Your task to perform on an android device: change the upload size in google photos Image 0: 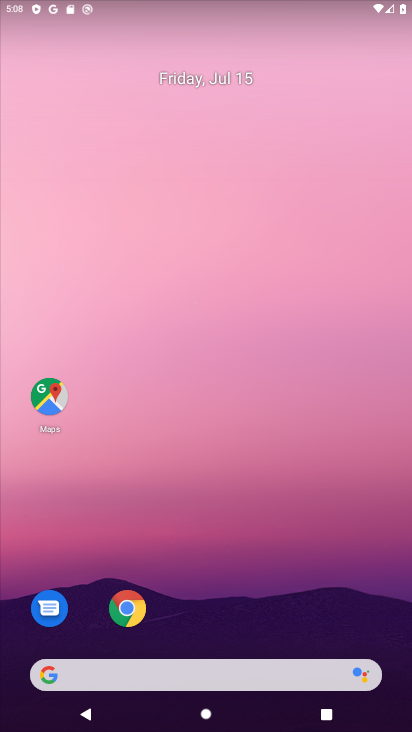
Step 0: click (345, 41)
Your task to perform on an android device: change the upload size in google photos Image 1: 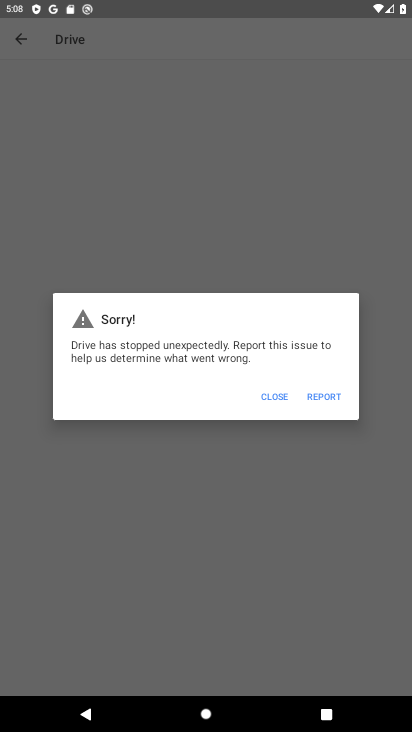
Step 1: click (265, 595)
Your task to perform on an android device: change the upload size in google photos Image 2: 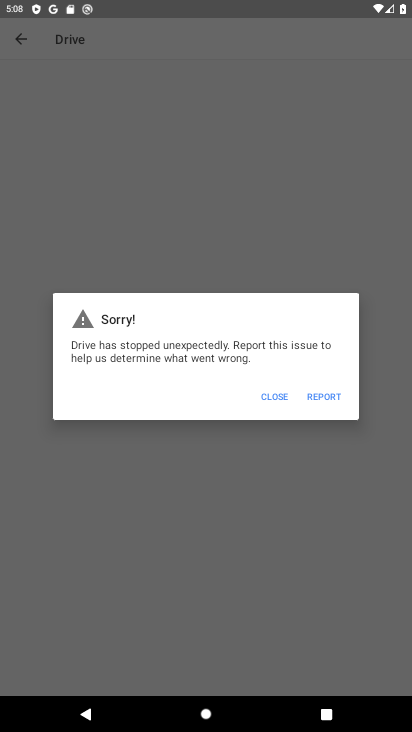
Step 2: drag from (265, 591) to (399, 44)
Your task to perform on an android device: change the upload size in google photos Image 3: 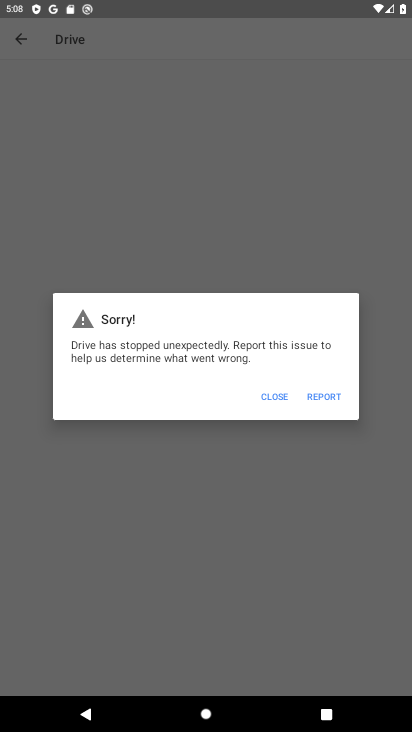
Step 3: click (272, 396)
Your task to perform on an android device: change the upload size in google photos Image 4: 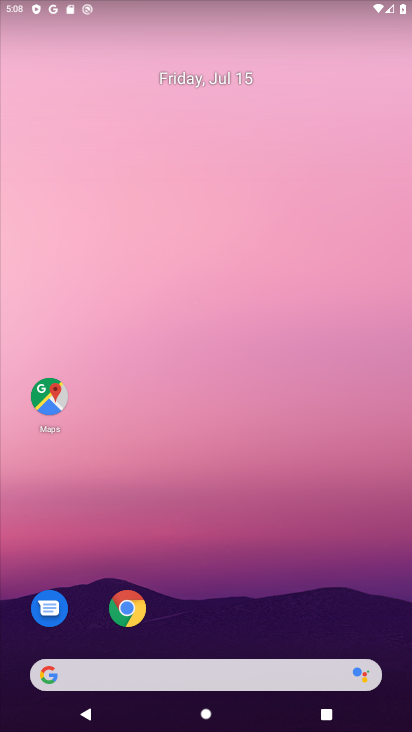
Step 4: drag from (237, 581) to (371, 9)
Your task to perform on an android device: change the upload size in google photos Image 5: 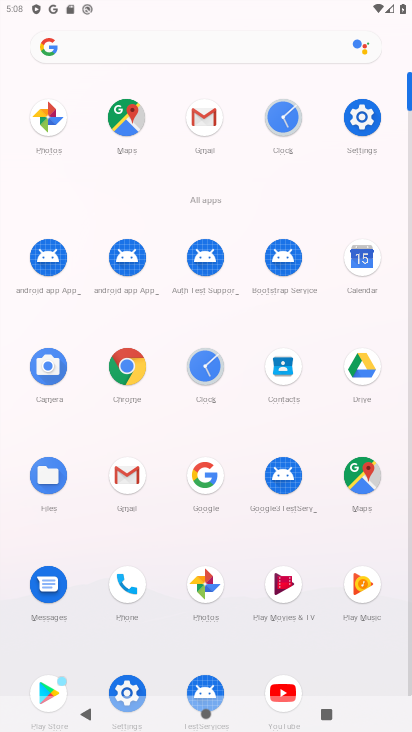
Step 5: click (51, 128)
Your task to perform on an android device: change the upload size in google photos Image 6: 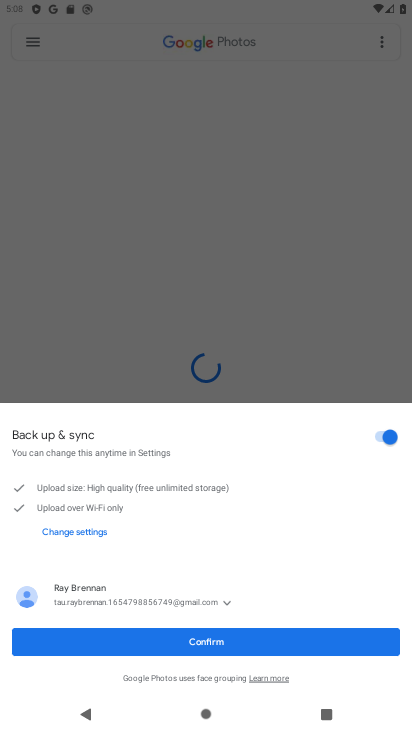
Step 6: click (194, 638)
Your task to perform on an android device: change the upload size in google photos Image 7: 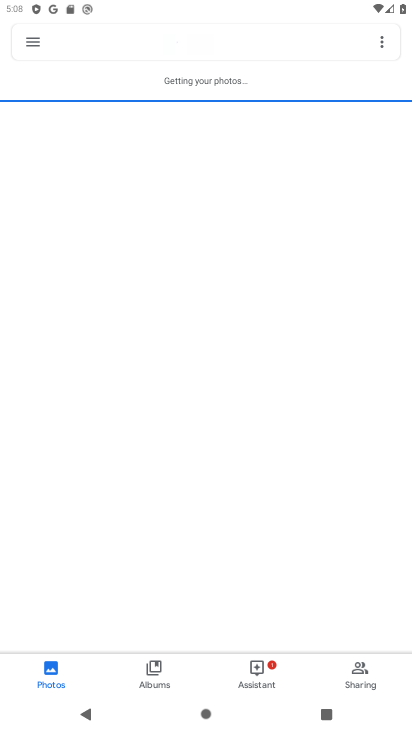
Step 7: click (38, 43)
Your task to perform on an android device: change the upload size in google photos Image 8: 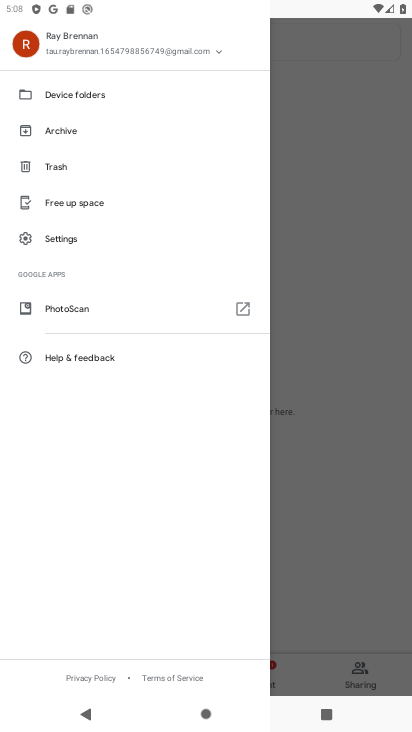
Step 8: click (37, 244)
Your task to perform on an android device: change the upload size in google photos Image 9: 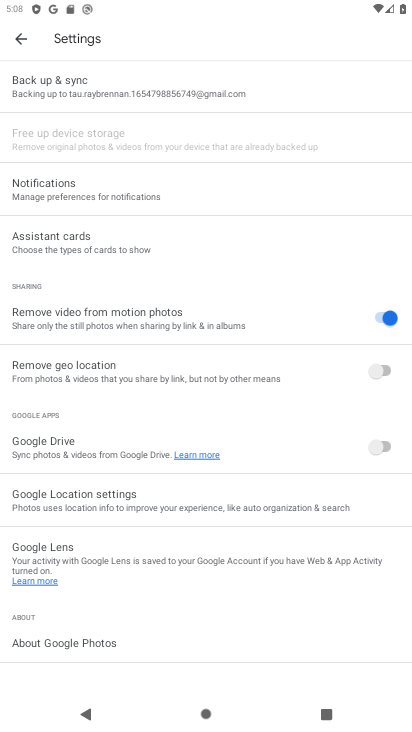
Step 9: click (74, 87)
Your task to perform on an android device: change the upload size in google photos Image 10: 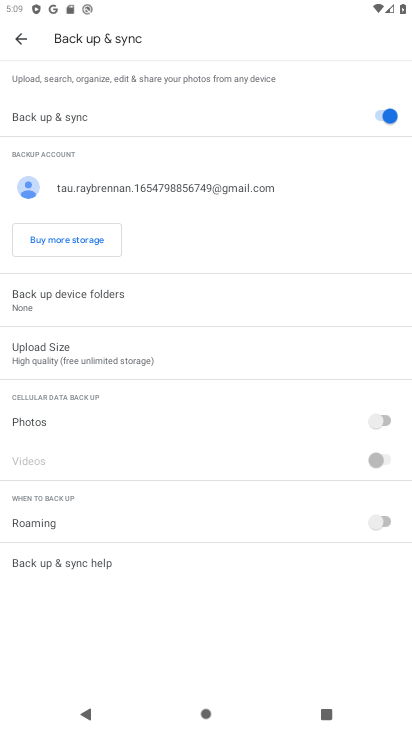
Step 10: click (68, 353)
Your task to perform on an android device: change the upload size in google photos Image 11: 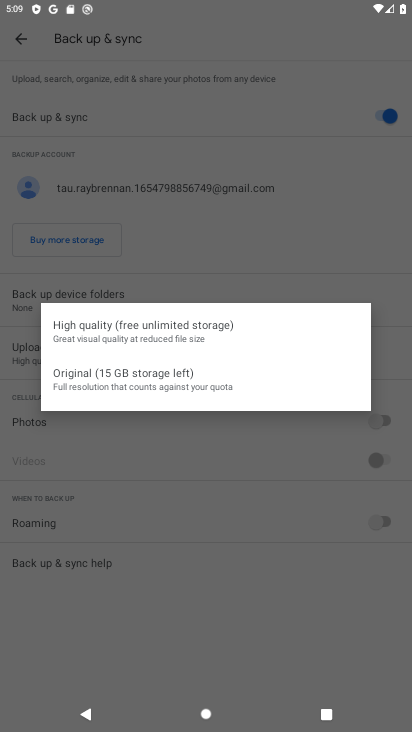
Step 11: click (109, 381)
Your task to perform on an android device: change the upload size in google photos Image 12: 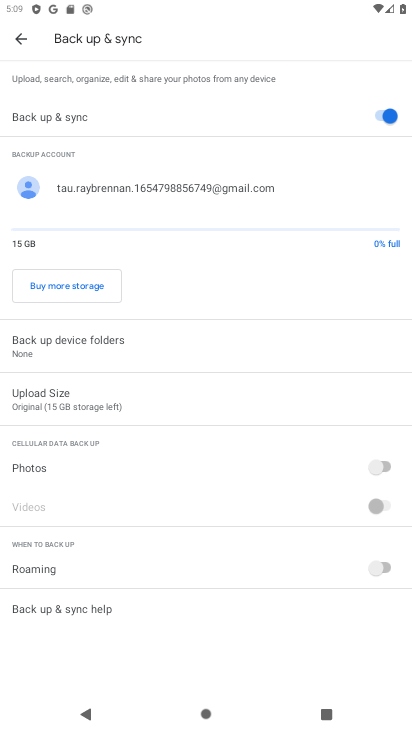
Step 12: task complete